Your task to perform on an android device: toggle improve location accuracy Image 0: 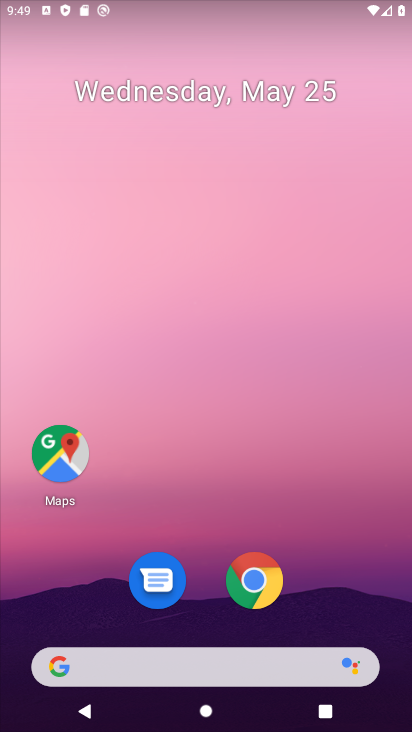
Step 0: drag from (23, 615) to (258, 155)
Your task to perform on an android device: toggle improve location accuracy Image 1: 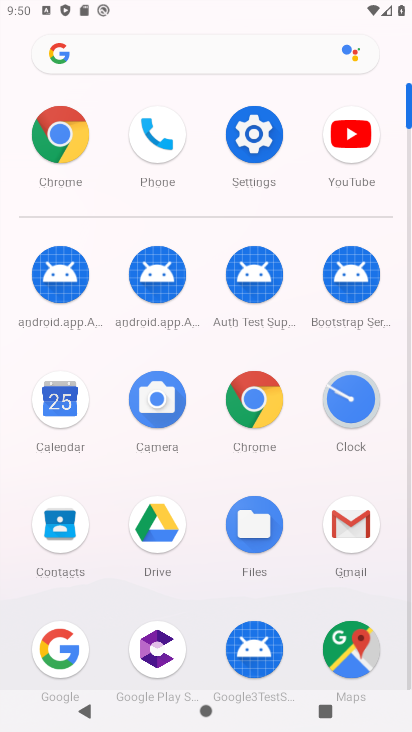
Step 1: click (260, 127)
Your task to perform on an android device: toggle improve location accuracy Image 2: 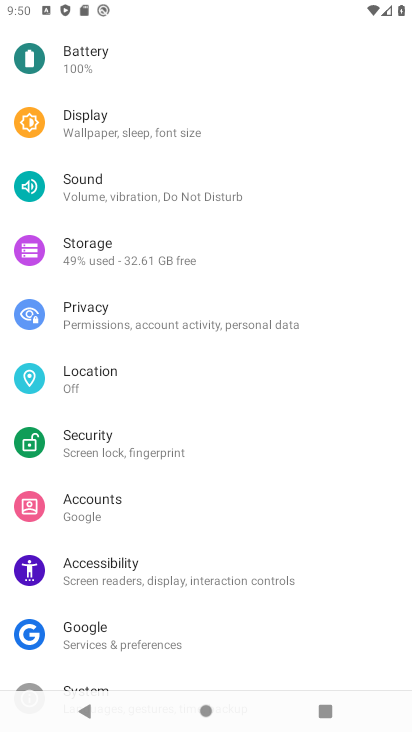
Step 2: click (62, 389)
Your task to perform on an android device: toggle improve location accuracy Image 3: 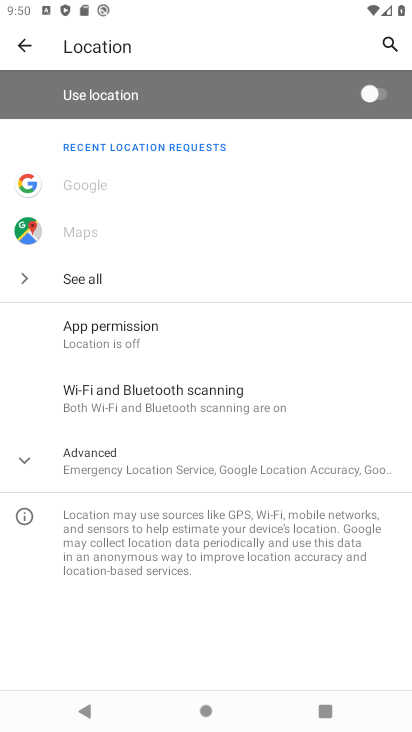
Step 3: click (206, 464)
Your task to perform on an android device: toggle improve location accuracy Image 4: 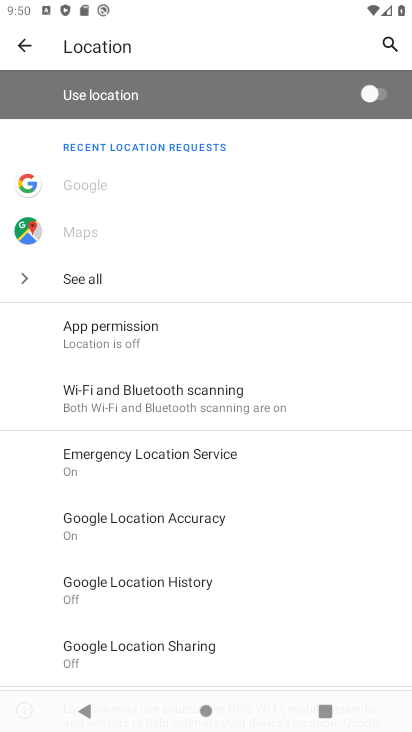
Step 4: click (218, 510)
Your task to perform on an android device: toggle improve location accuracy Image 5: 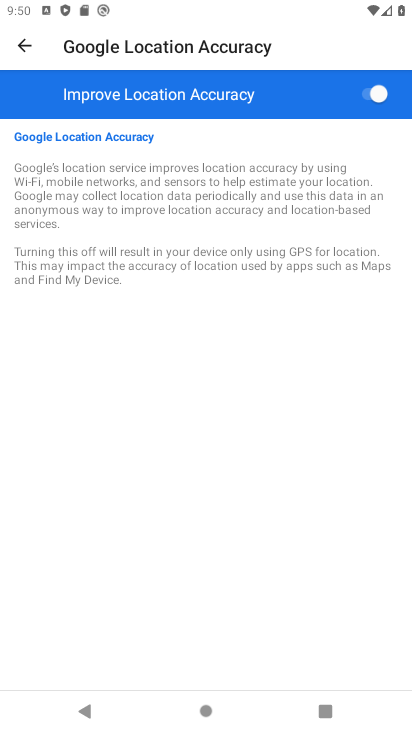
Step 5: click (379, 91)
Your task to perform on an android device: toggle improve location accuracy Image 6: 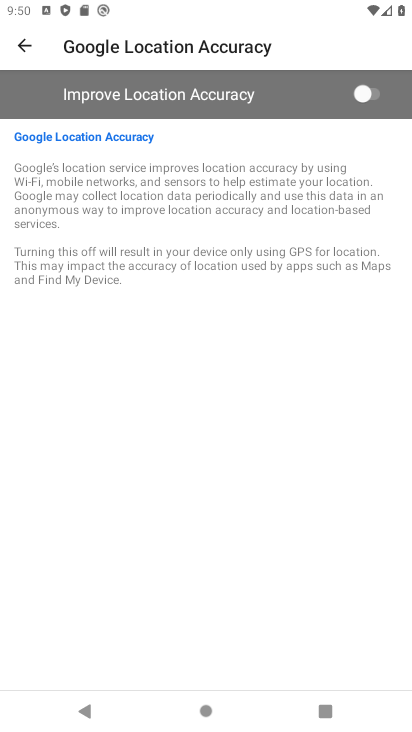
Step 6: task complete